Your task to perform on an android device: toggle sleep mode Image 0: 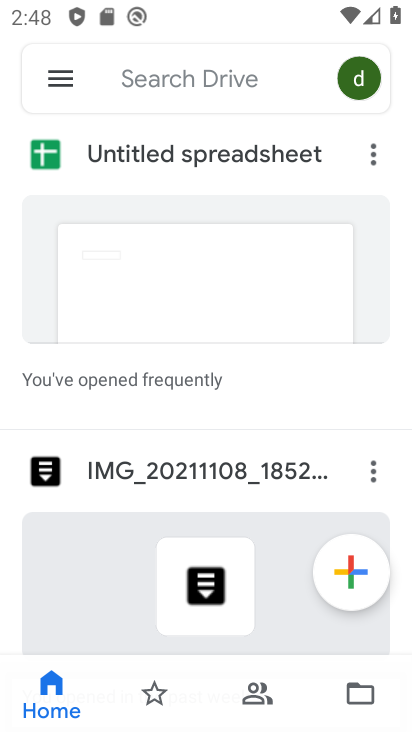
Step 0: press home button
Your task to perform on an android device: toggle sleep mode Image 1: 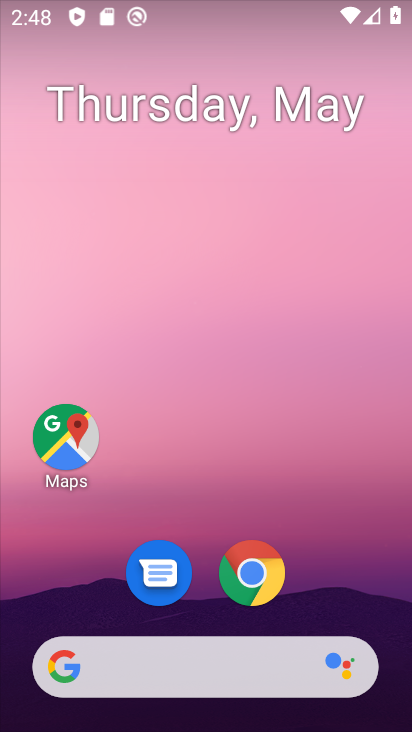
Step 1: drag from (307, 496) to (151, 1)
Your task to perform on an android device: toggle sleep mode Image 2: 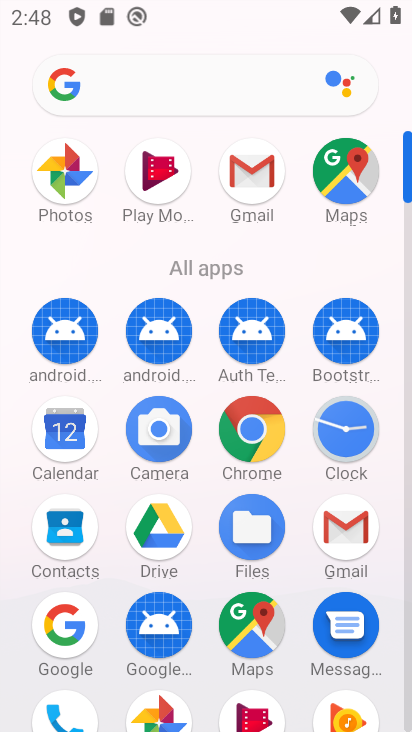
Step 2: drag from (205, 669) to (130, 346)
Your task to perform on an android device: toggle sleep mode Image 3: 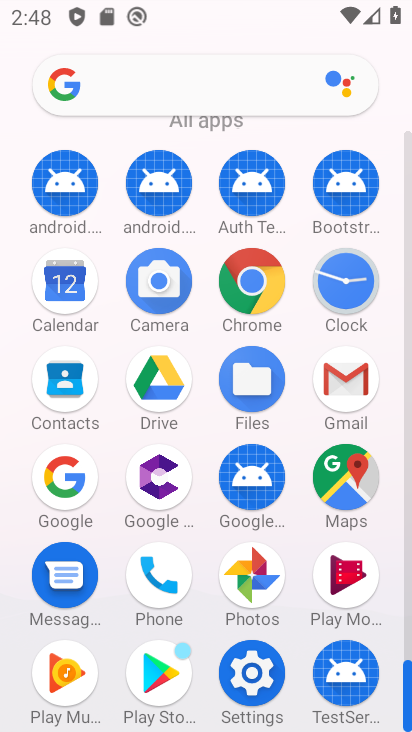
Step 3: click (247, 674)
Your task to perform on an android device: toggle sleep mode Image 4: 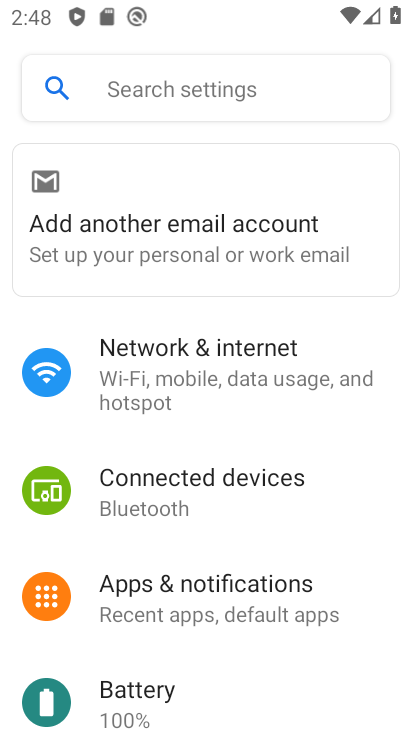
Step 4: drag from (227, 666) to (153, 367)
Your task to perform on an android device: toggle sleep mode Image 5: 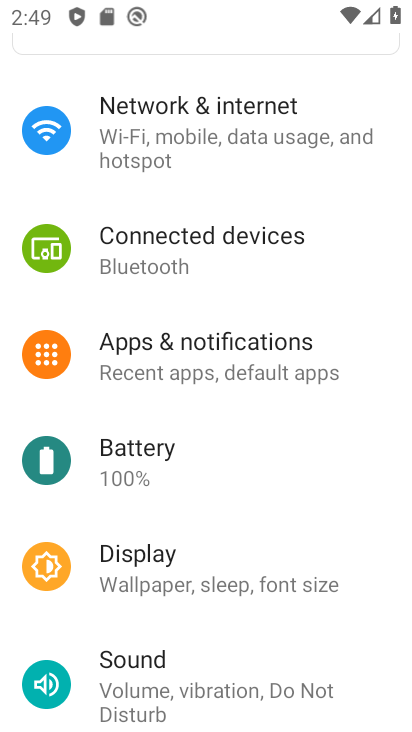
Step 5: click (157, 557)
Your task to perform on an android device: toggle sleep mode Image 6: 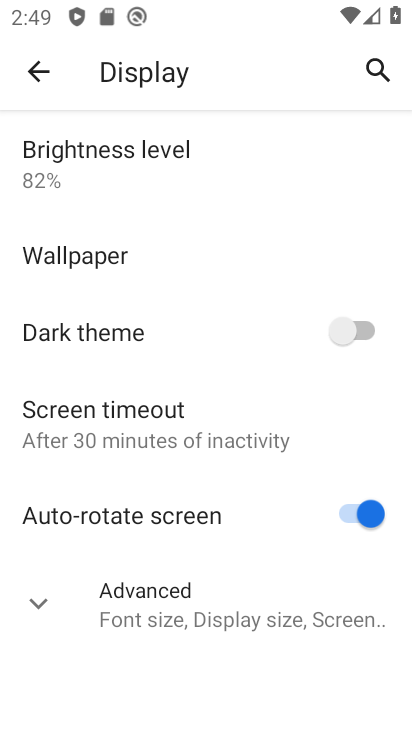
Step 6: task complete